Your task to perform on an android device: Open Google Chrome Image 0: 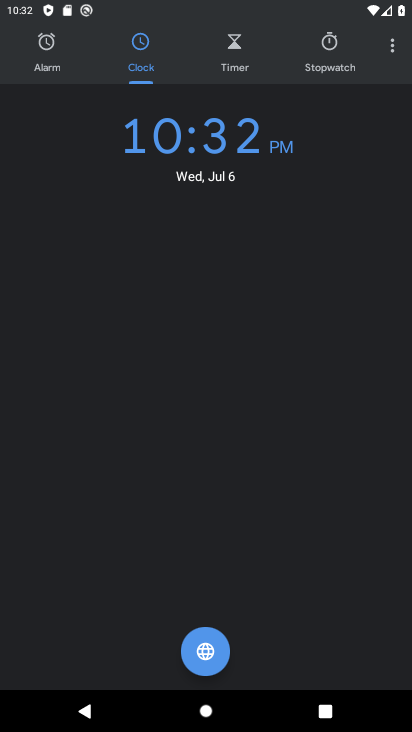
Step 0: press back button
Your task to perform on an android device: Open Google Chrome Image 1: 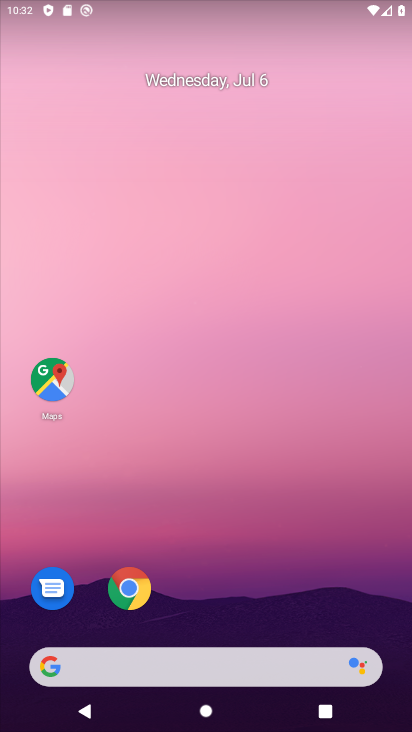
Step 1: drag from (260, 692) to (159, 181)
Your task to perform on an android device: Open Google Chrome Image 2: 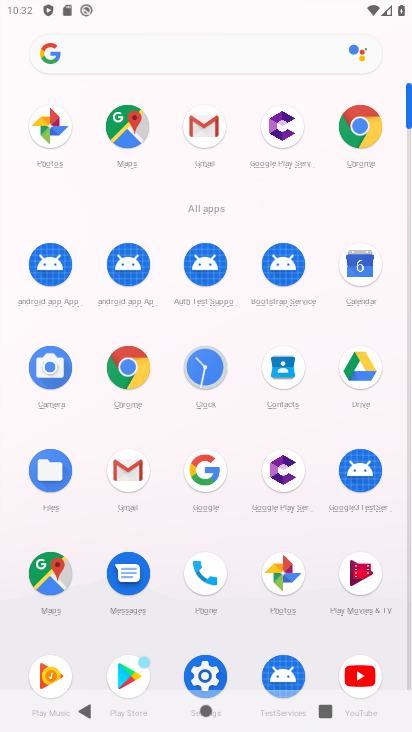
Step 2: click (119, 360)
Your task to perform on an android device: Open Google Chrome Image 3: 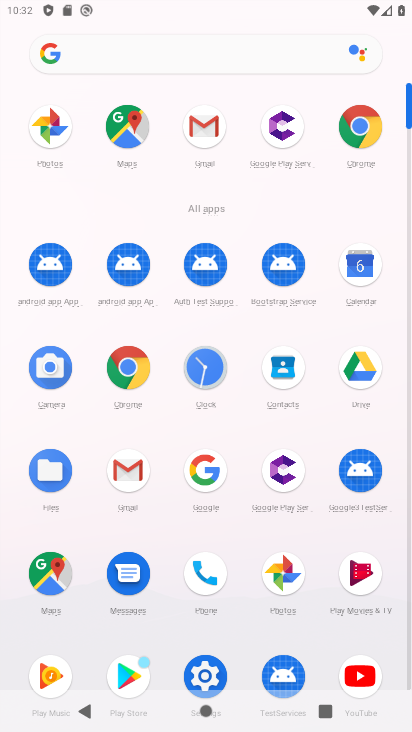
Step 3: click (119, 360)
Your task to perform on an android device: Open Google Chrome Image 4: 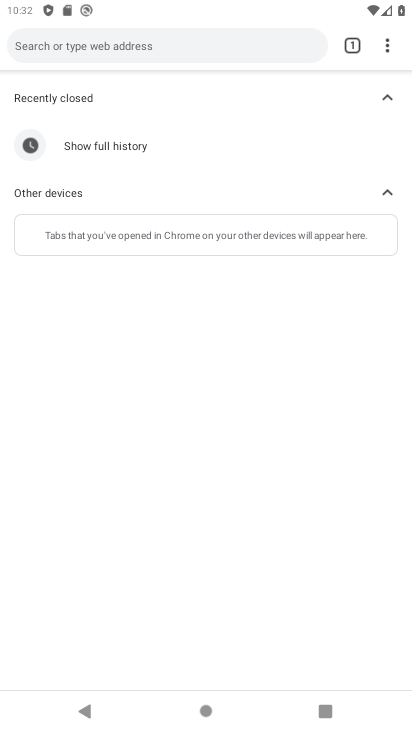
Step 4: click (120, 360)
Your task to perform on an android device: Open Google Chrome Image 5: 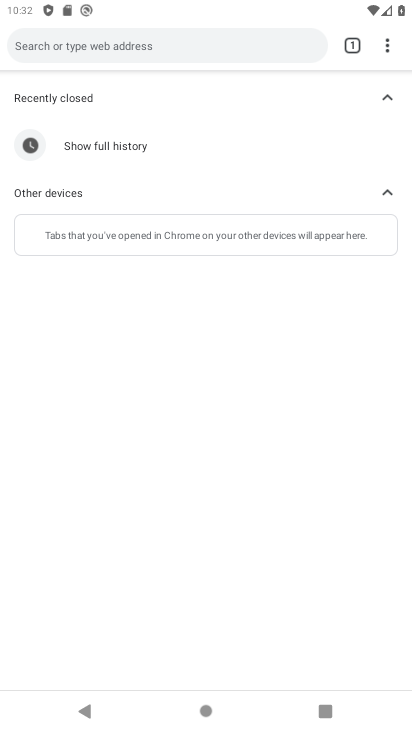
Step 5: press back button
Your task to perform on an android device: Open Google Chrome Image 6: 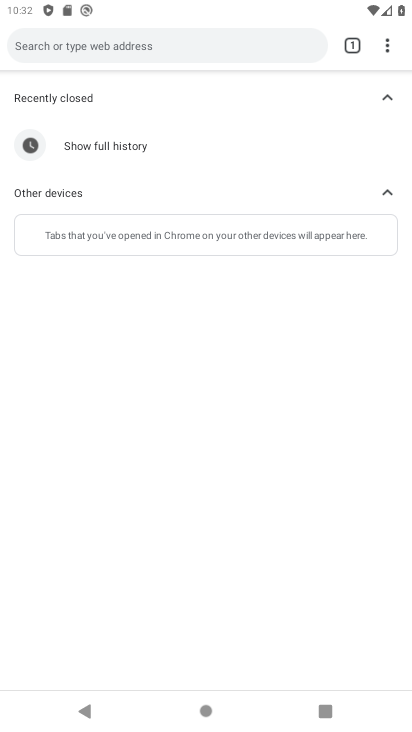
Step 6: press back button
Your task to perform on an android device: Open Google Chrome Image 7: 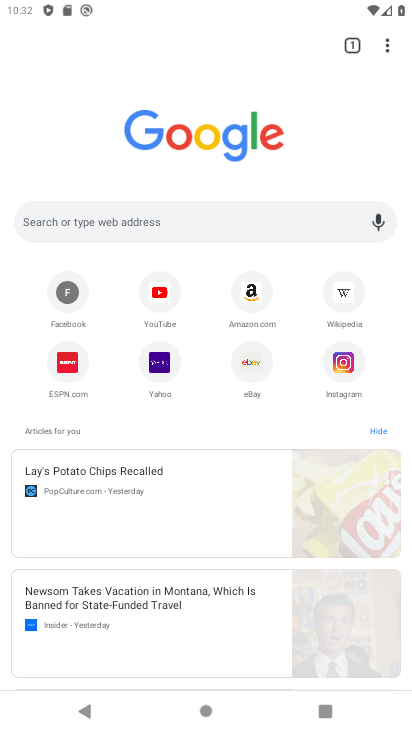
Step 7: press back button
Your task to perform on an android device: Open Google Chrome Image 8: 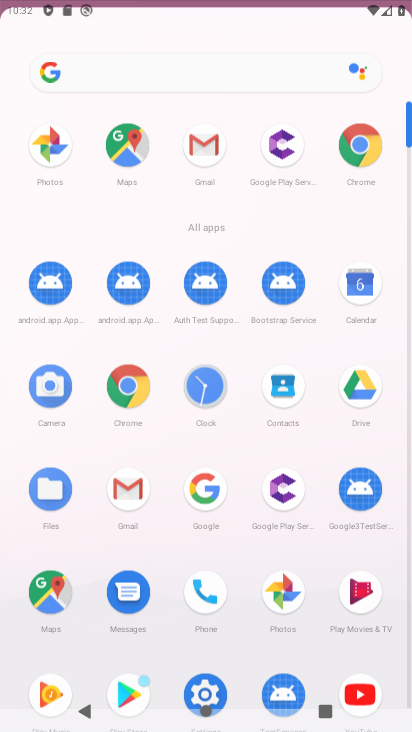
Step 8: press back button
Your task to perform on an android device: Open Google Chrome Image 9: 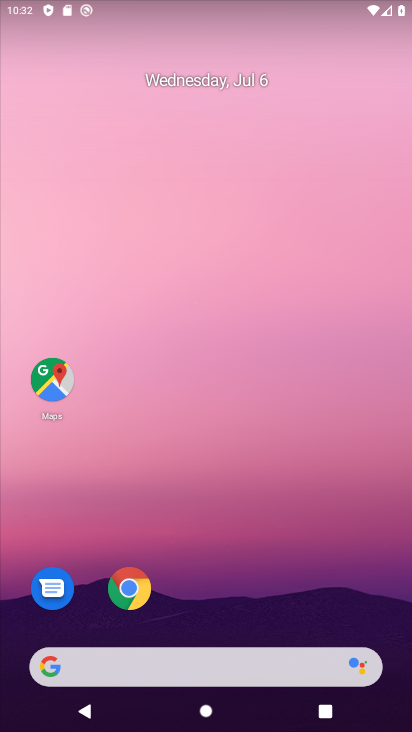
Step 9: press back button
Your task to perform on an android device: Open Google Chrome Image 10: 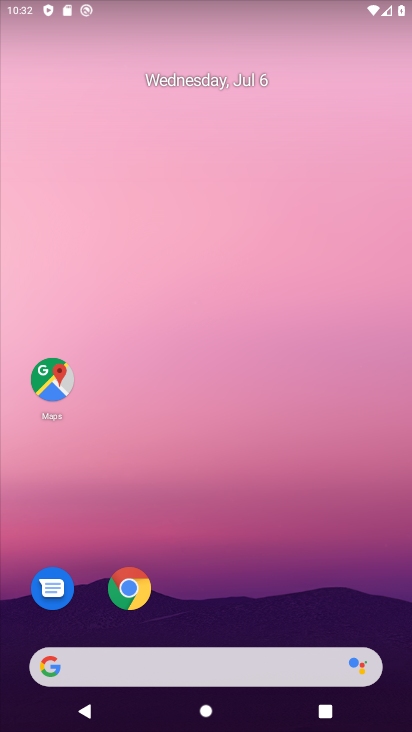
Step 10: press back button
Your task to perform on an android device: Open Google Chrome Image 11: 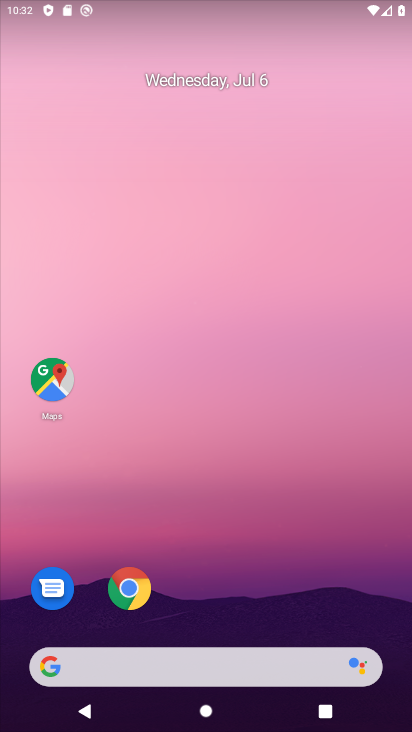
Step 11: press home button
Your task to perform on an android device: Open Google Chrome Image 12: 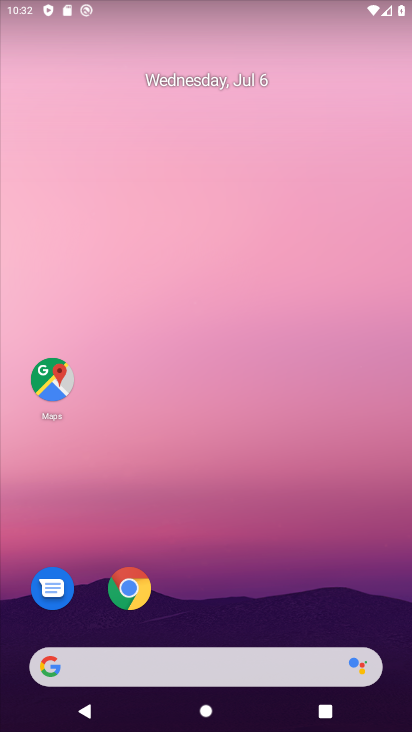
Step 12: press back button
Your task to perform on an android device: Open Google Chrome Image 13: 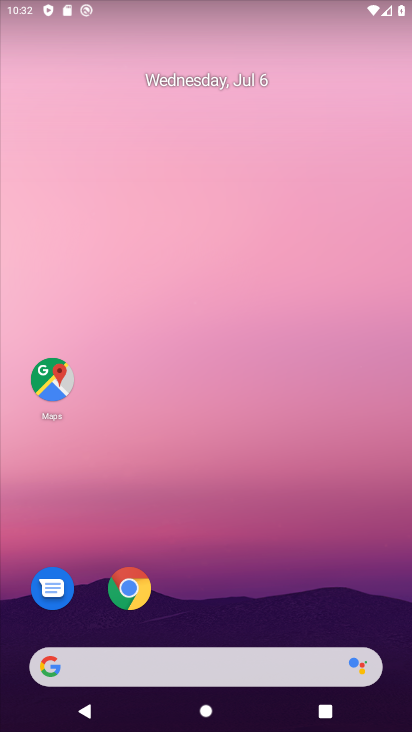
Step 13: press back button
Your task to perform on an android device: Open Google Chrome Image 14: 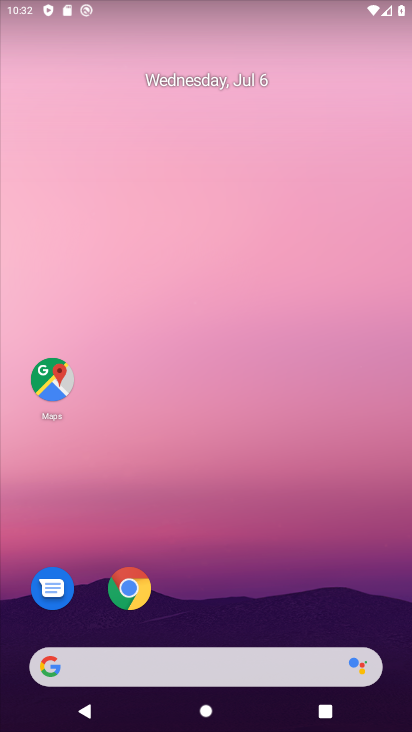
Step 14: press back button
Your task to perform on an android device: Open Google Chrome Image 15: 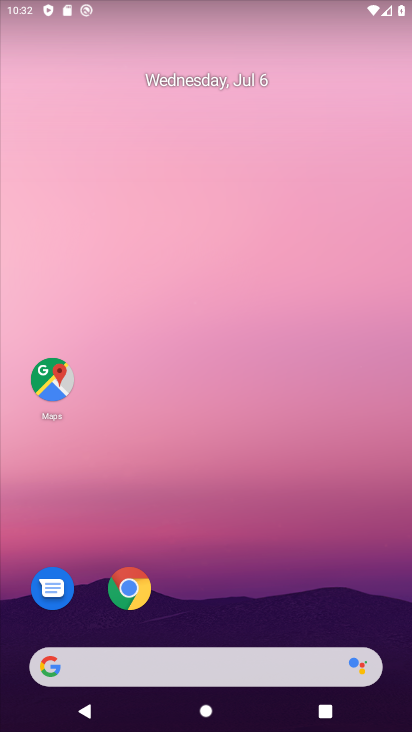
Step 15: drag from (266, 707) to (133, 10)
Your task to perform on an android device: Open Google Chrome Image 16: 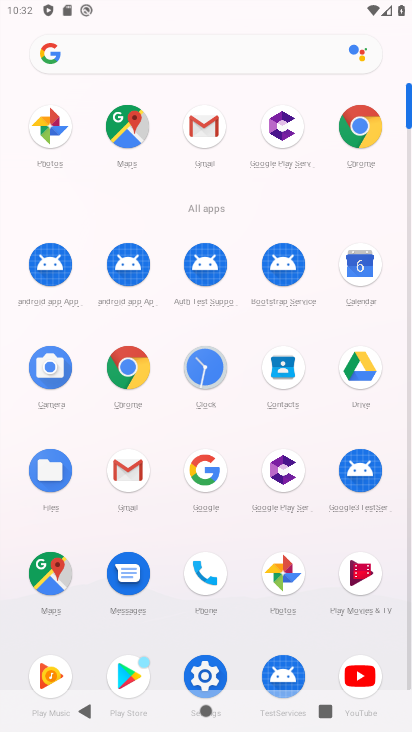
Step 16: click (154, 312)
Your task to perform on an android device: Open Google Chrome Image 17: 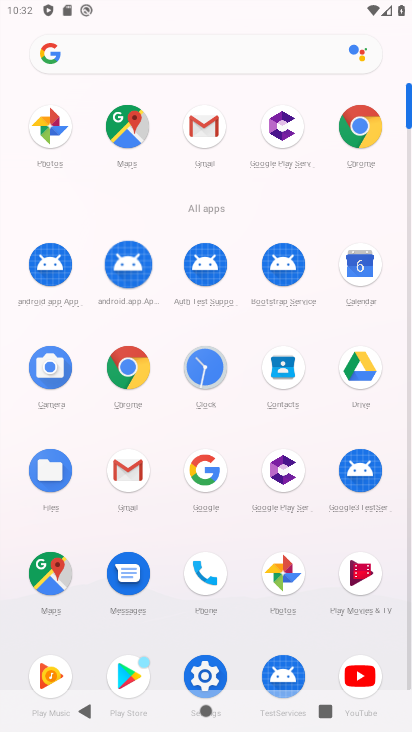
Step 17: click (114, 366)
Your task to perform on an android device: Open Google Chrome Image 18: 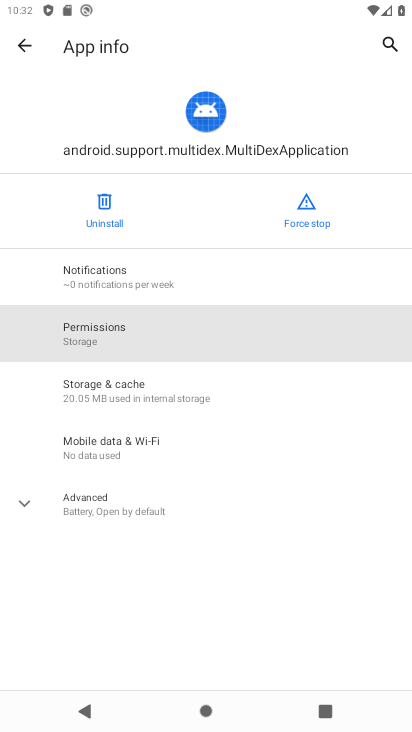
Step 18: click (114, 366)
Your task to perform on an android device: Open Google Chrome Image 19: 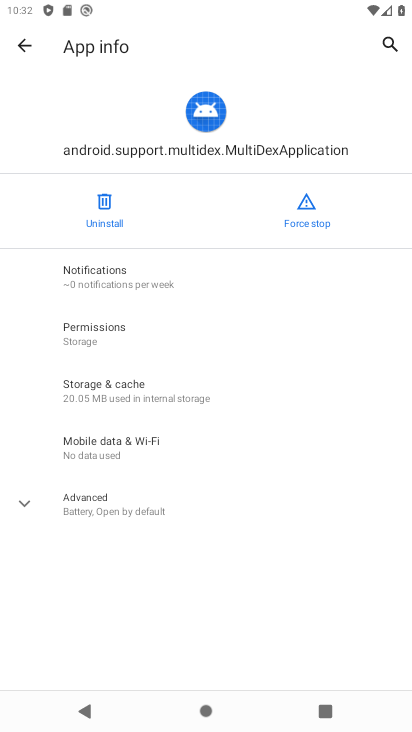
Step 19: click (114, 366)
Your task to perform on an android device: Open Google Chrome Image 20: 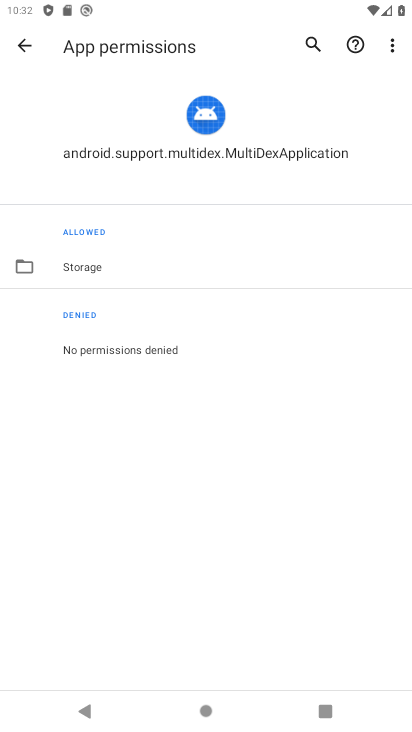
Step 20: click (19, 53)
Your task to perform on an android device: Open Google Chrome Image 21: 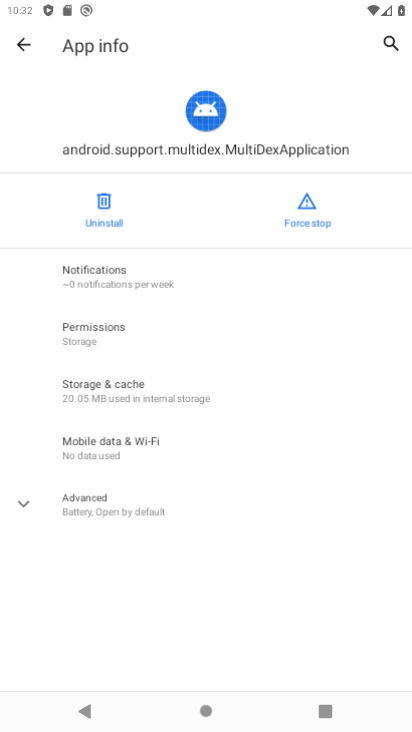
Step 21: task complete